Your task to perform on an android device: Open privacy settings Image 0: 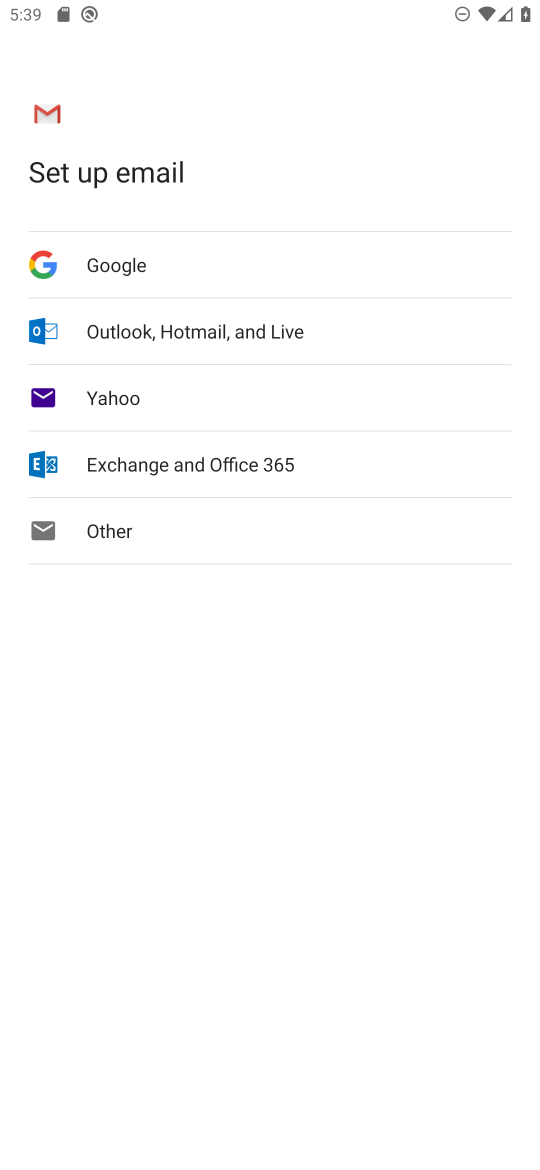
Step 0: press home button
Your task to perform on an android device: Open privacy settings Image 1: 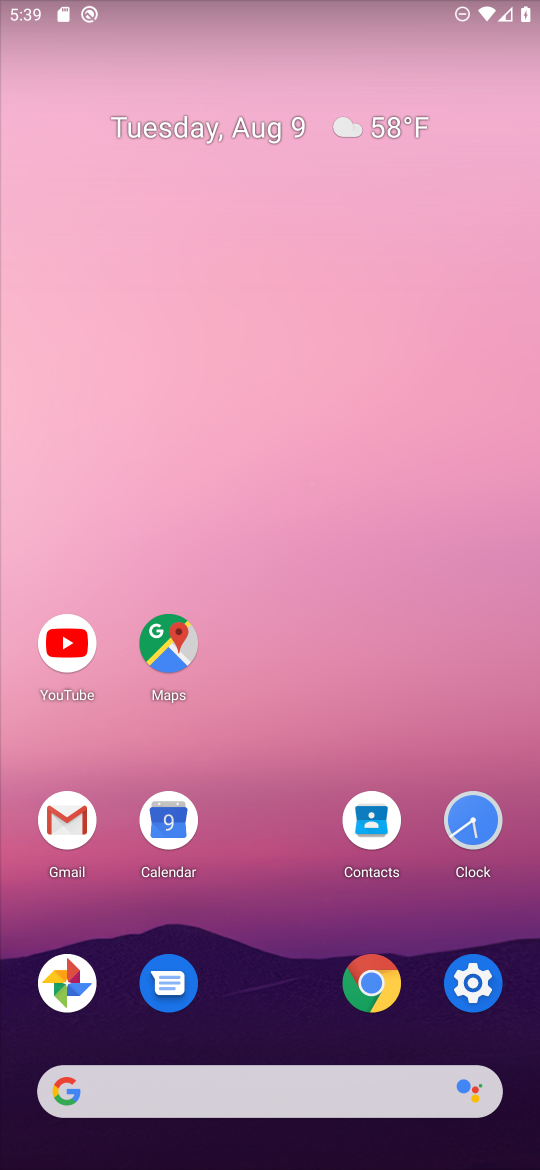
Step 1: click (474, 983)
Your task to perform on an android device: Open privacy settings Image 2: 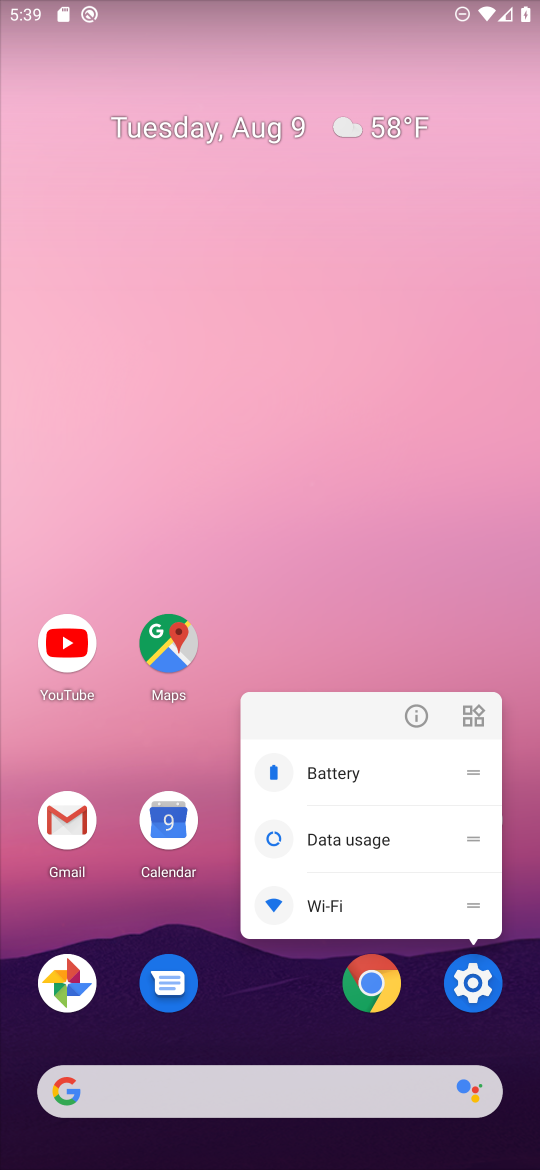
Step 2: click (474, 981)
Your task to perform on an android device: Open privacy settings Image 3: 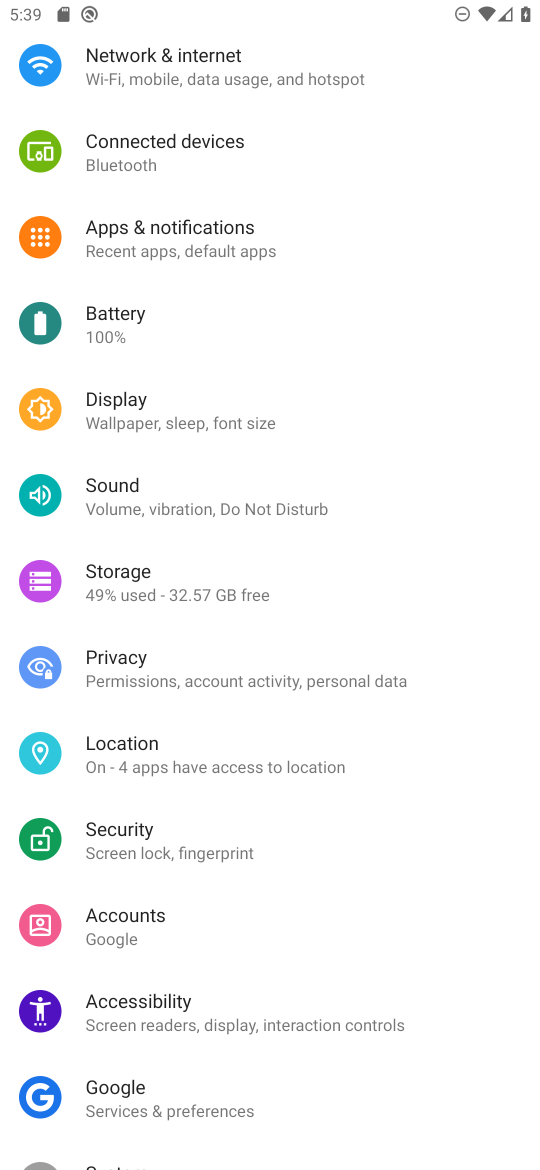
Step 3: click (119, 661)
Your task to perform on an android device: Open privacy settings Image 4: 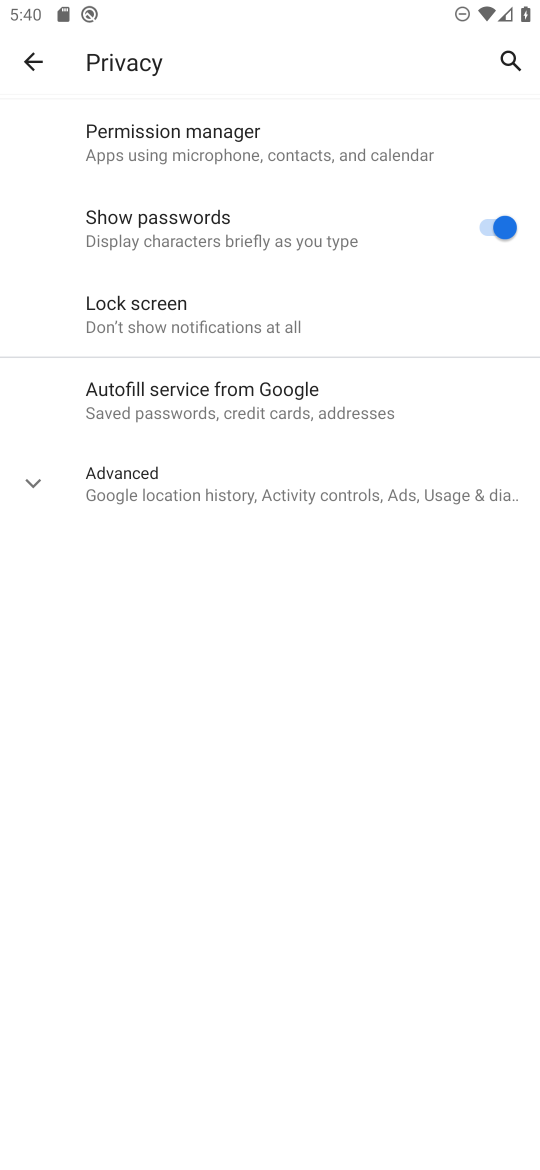
Step 4: task complete